Your task to perform on an android device: turn off wifi Image 0: 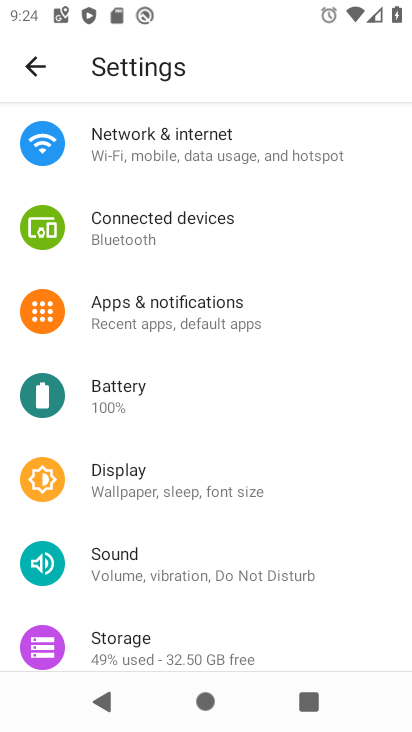
Step 0: click (249, 147)
Your task to perform on an android device: turn off wifi Image 1: 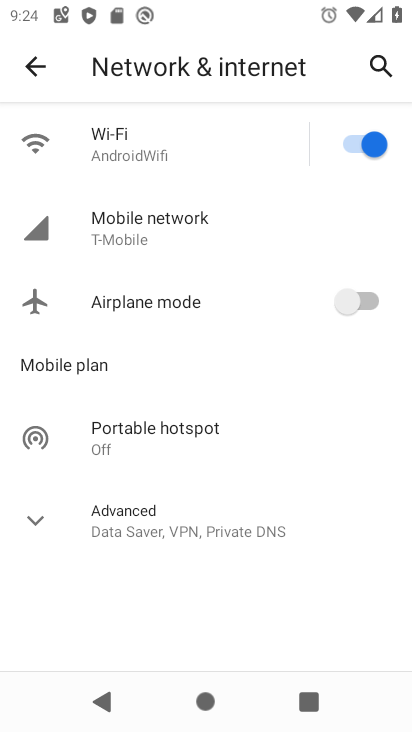
Step 1: click (362, 141)
Your task to perform on an android device: turn off wifi Image 2: 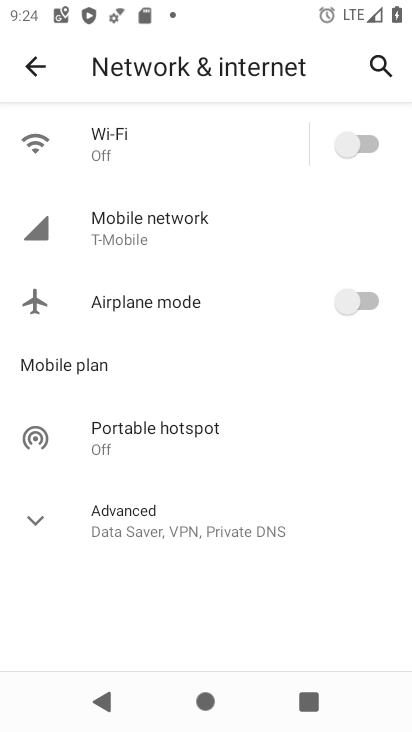
Step 2: task complete